Your task to perform on an android device: turn off wifi Image 0: 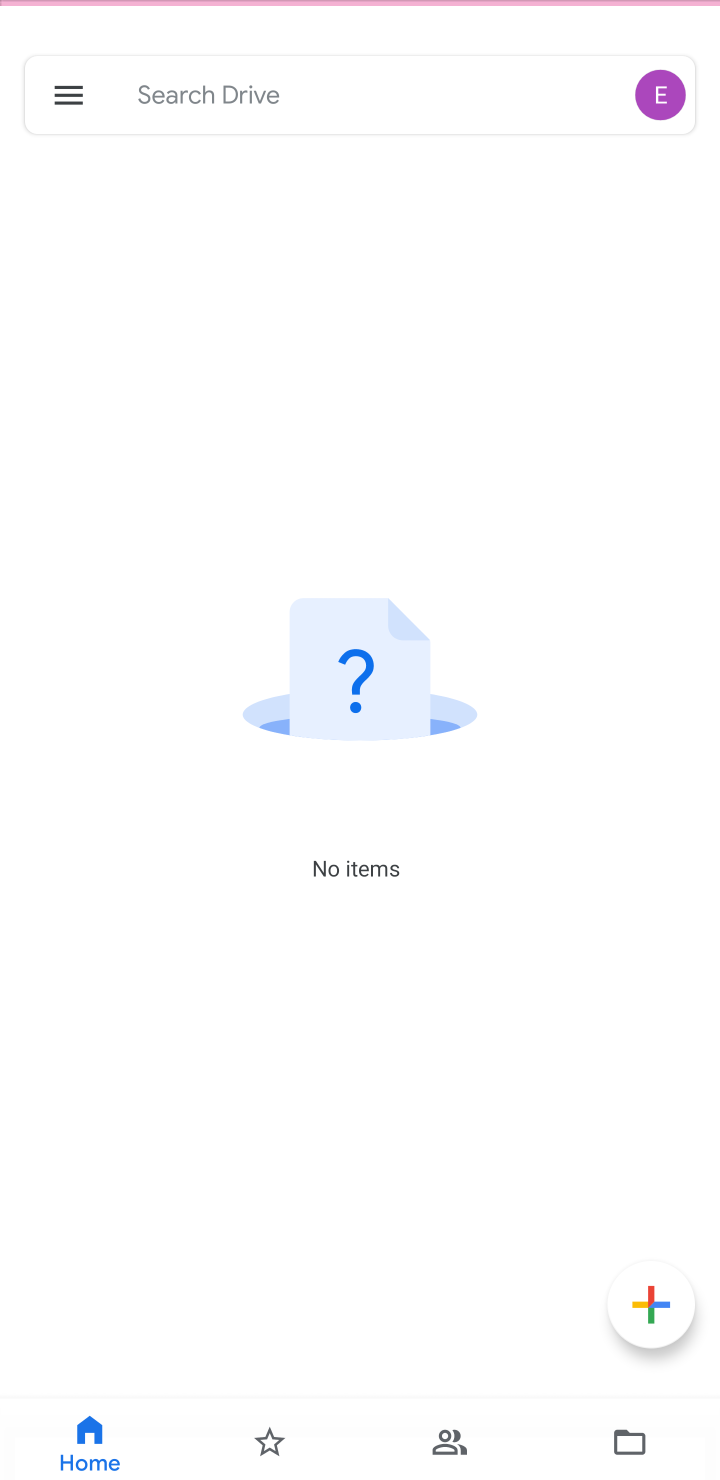
Step 0: press home button
Your task to perform on an android device: turn off wifi Image 1: 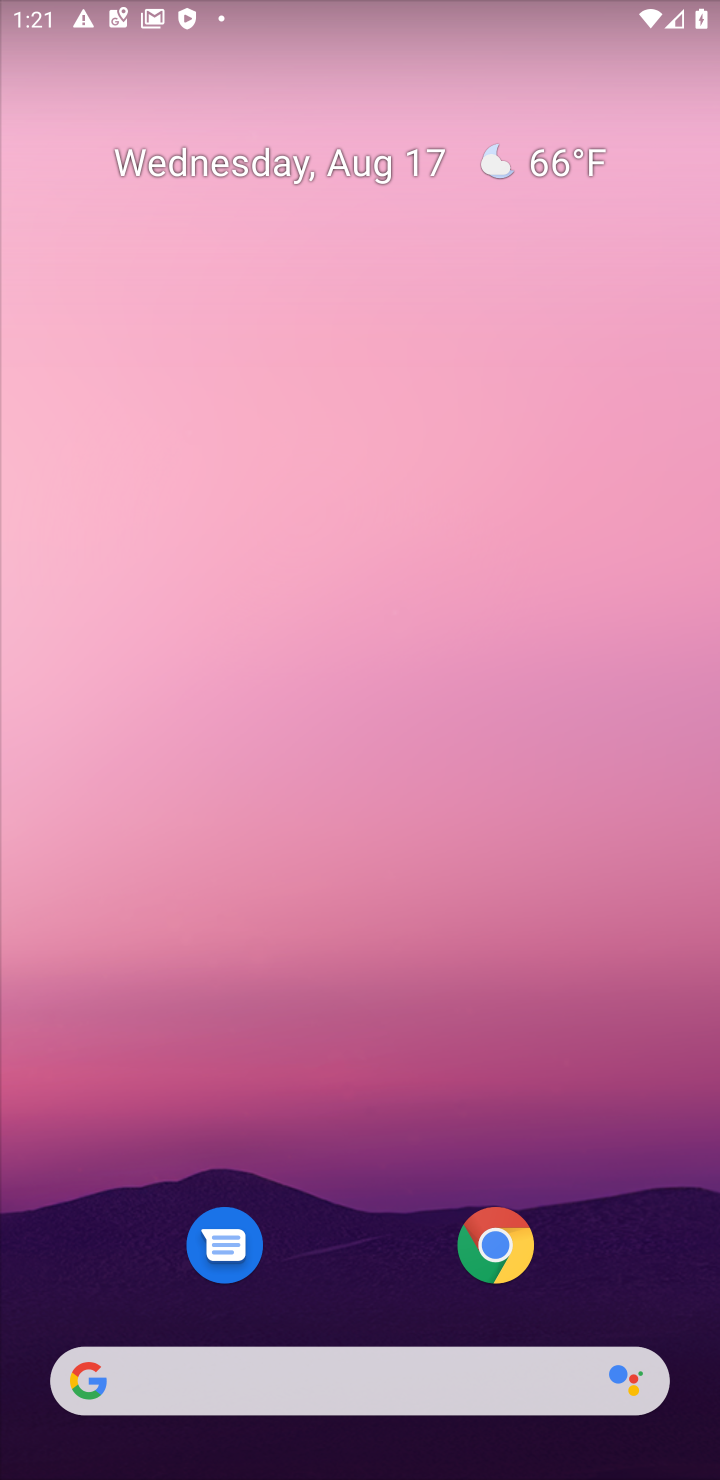
Step 1: drag from (337, 807) to (342, 35)
Your task to perform on an android device: turn off wifi Image 2: 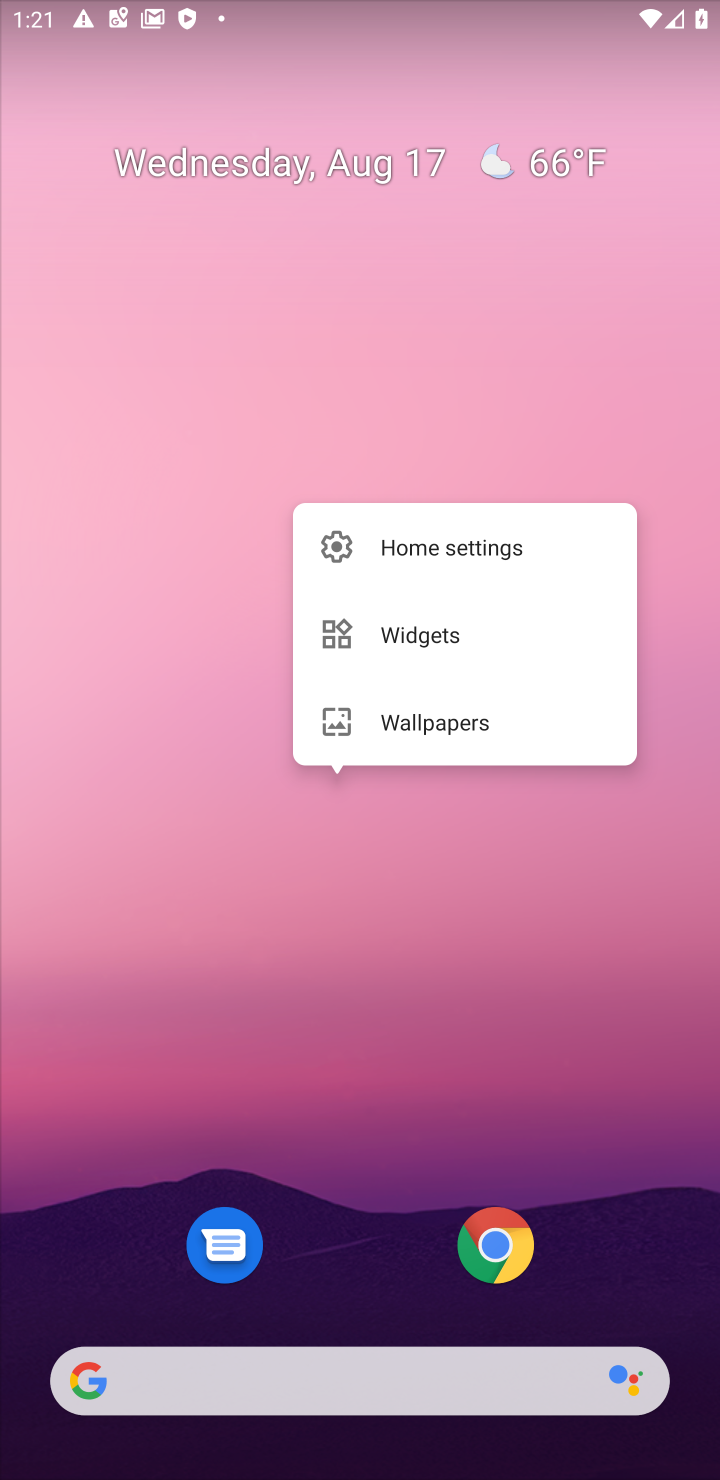
Step 2: click (383, 936)
Your task to perform on an android device: turn off wifi Image 3: 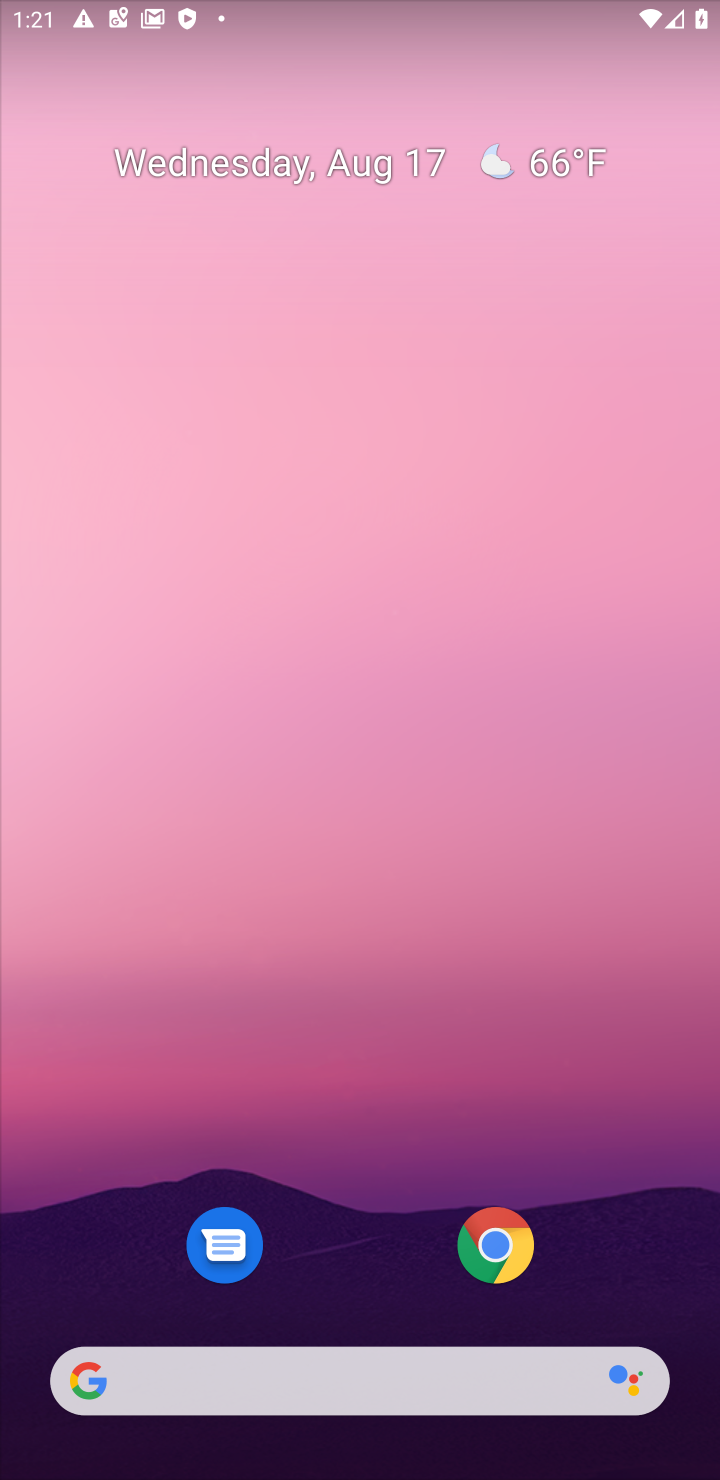
Step 3: drag from (352, 865) to (352, 192)
Your task to perform on an android device: turn off wifi Image 4: 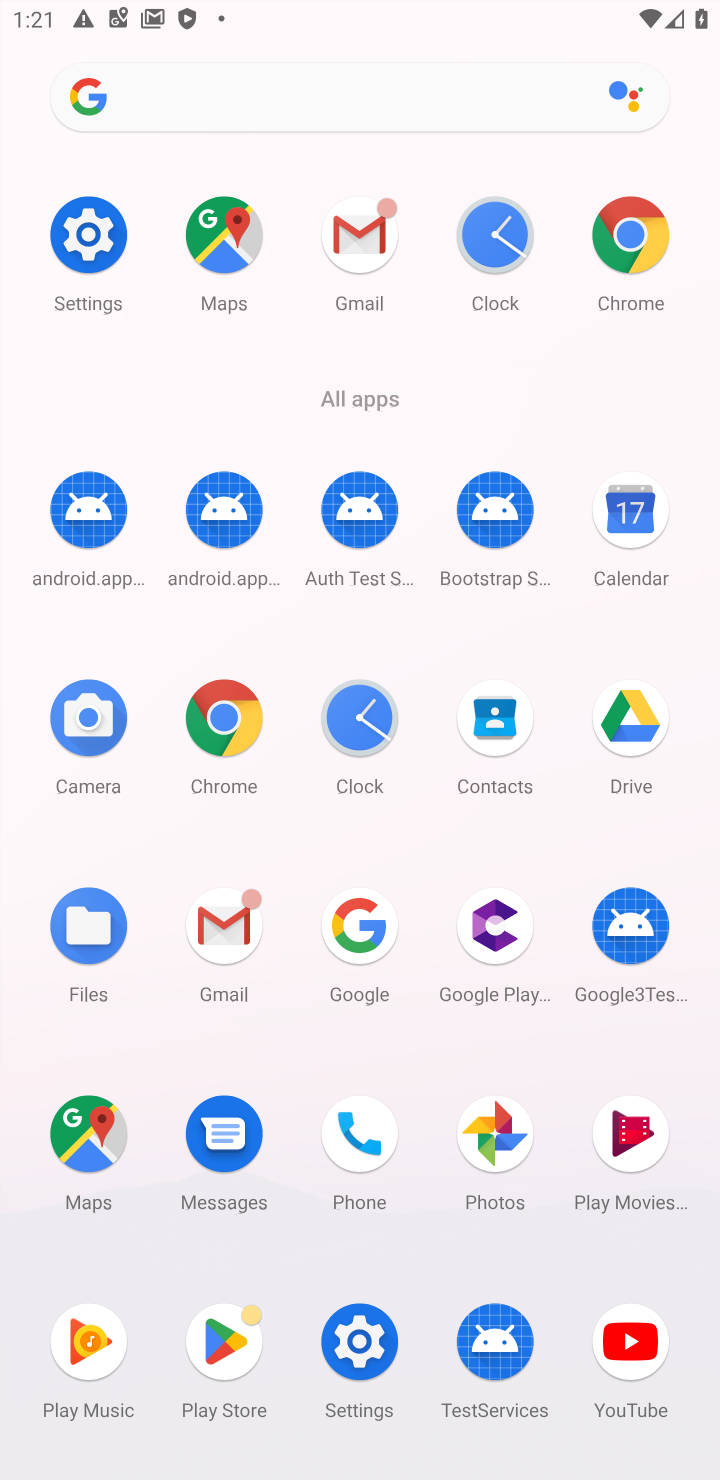
Step 4: click (91, 228)
Your task to perform on an android device: turn off wifi Image 5: 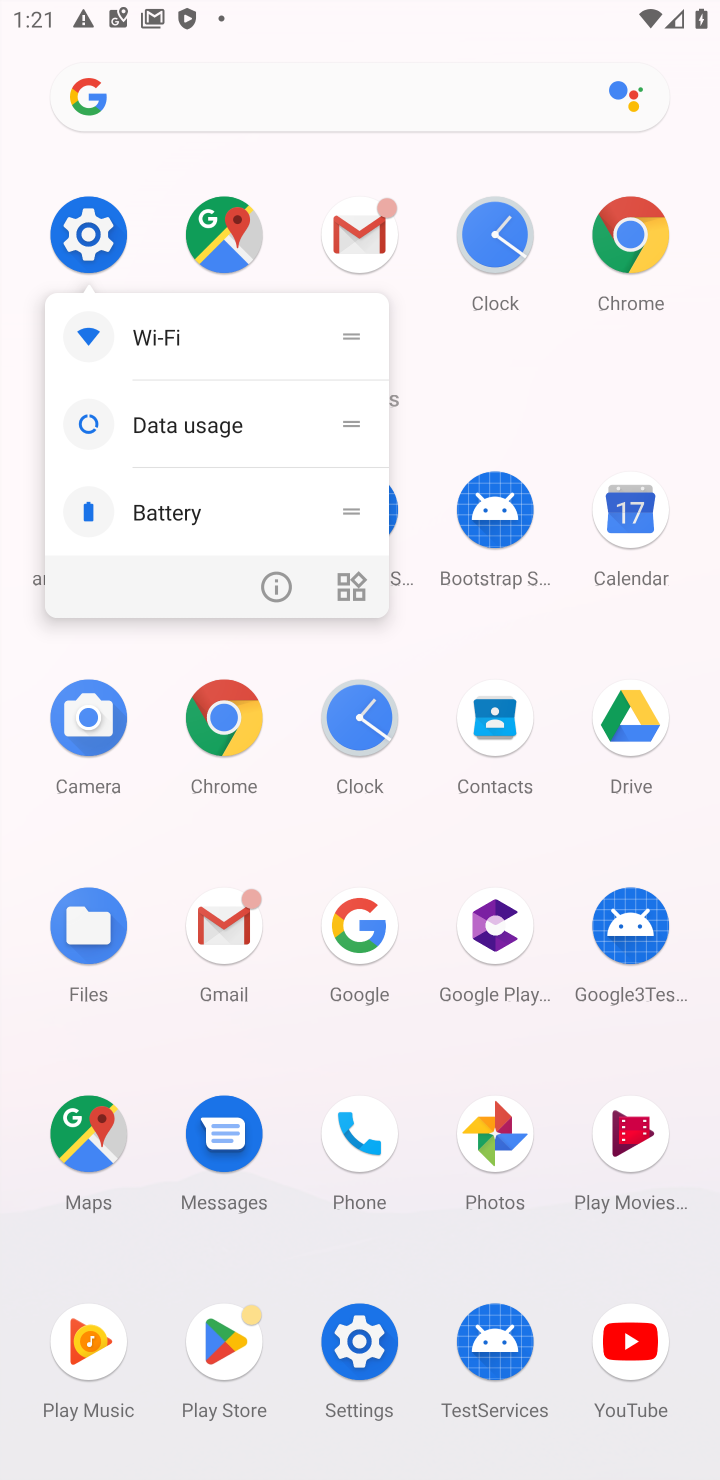
Step 5: click (92, 225)
Your task to perform on an android device: turn off wifi Image 6: 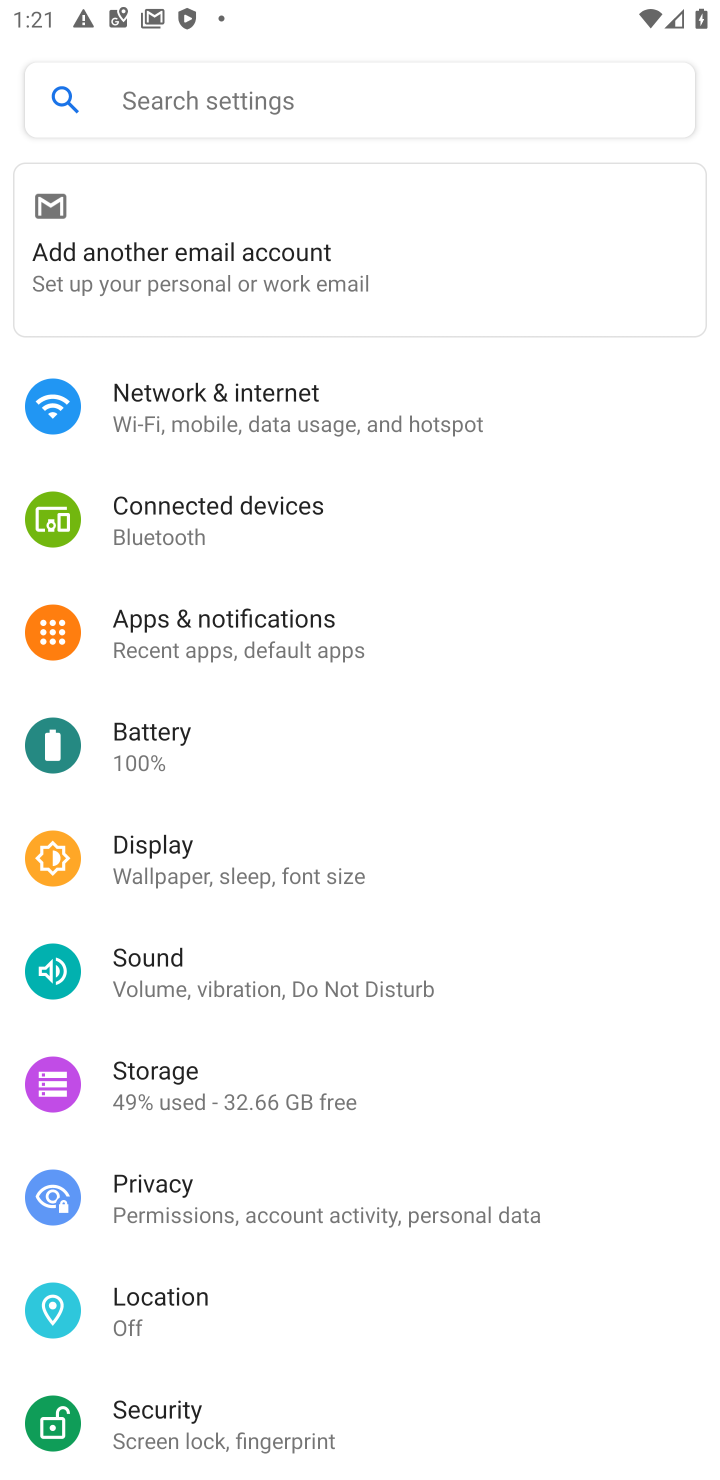
Step 6: click (204, 409)
Your task to perform on an android device: turn off wifi Image 7: 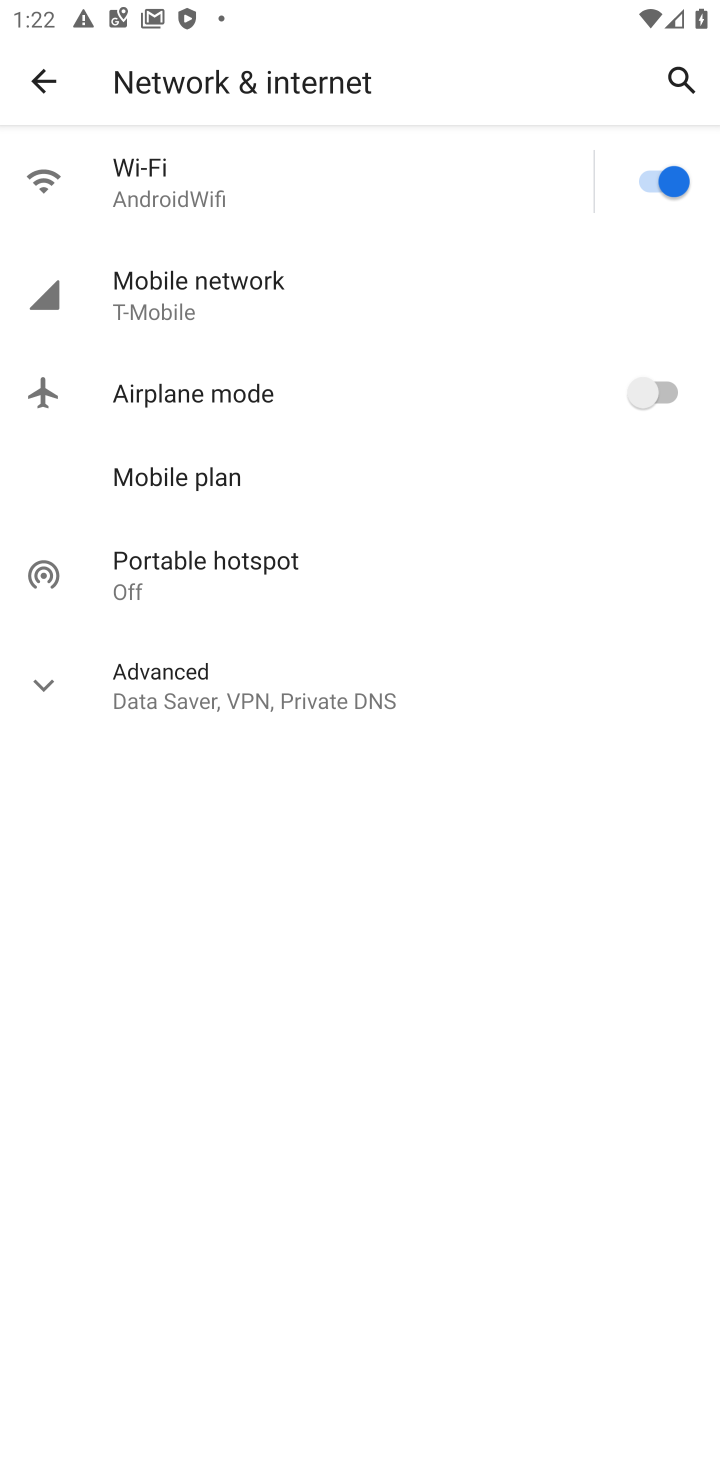
Step 7: click (663, 168)
Your task to perform on an android device: turn off wifi Image 8: 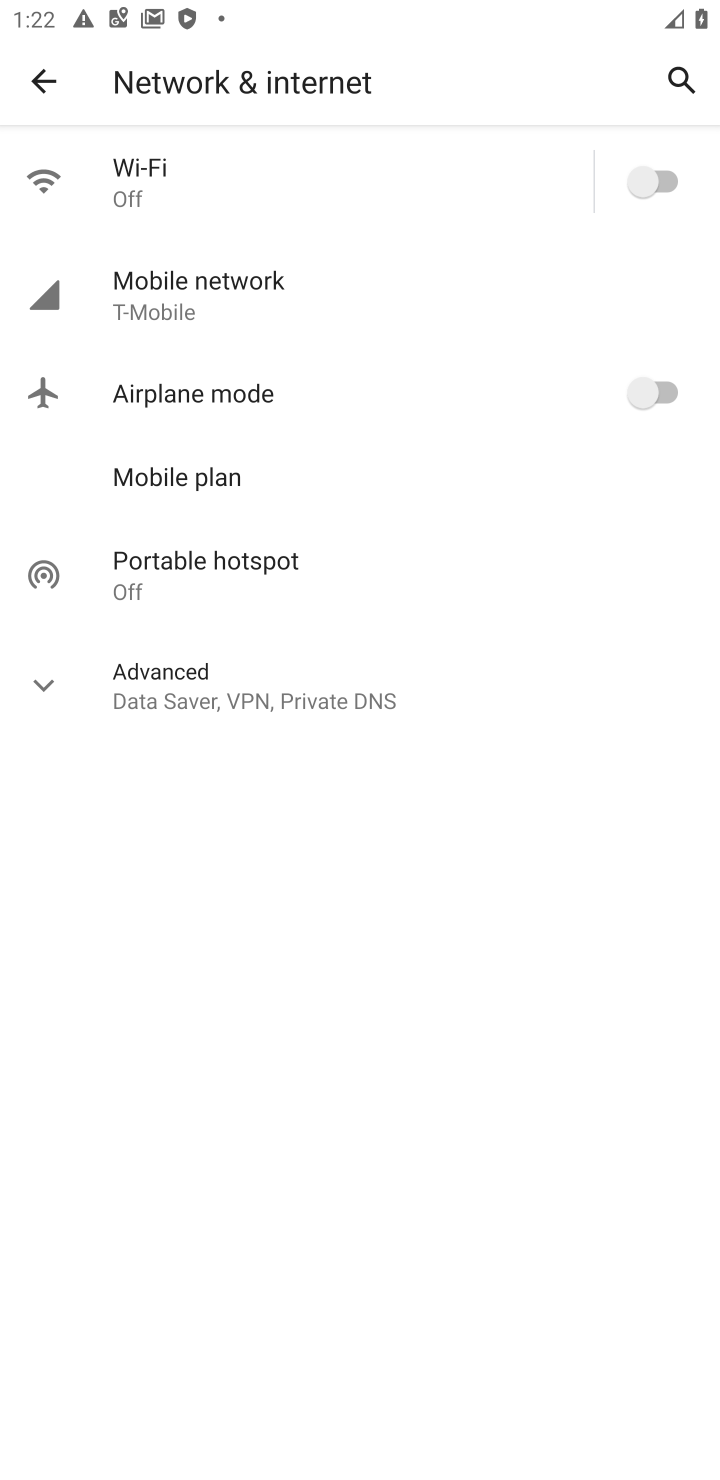
Step 8: task complete